Your task to perform on an android device: When is my next appointment? Image 0: 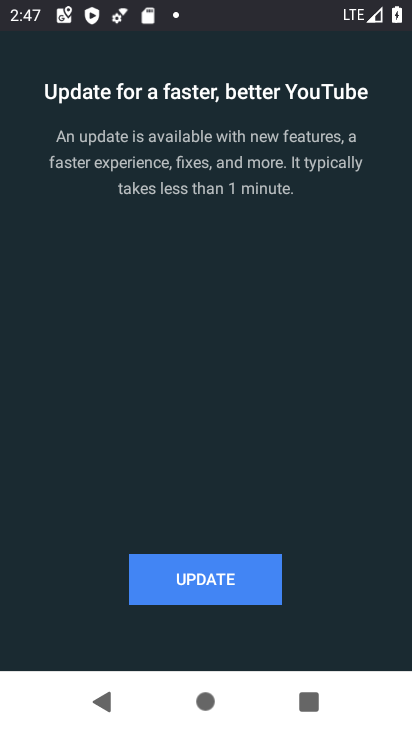
Step 0: press home button
Your task to perform on an android device: When is my next appointment? Image 1: 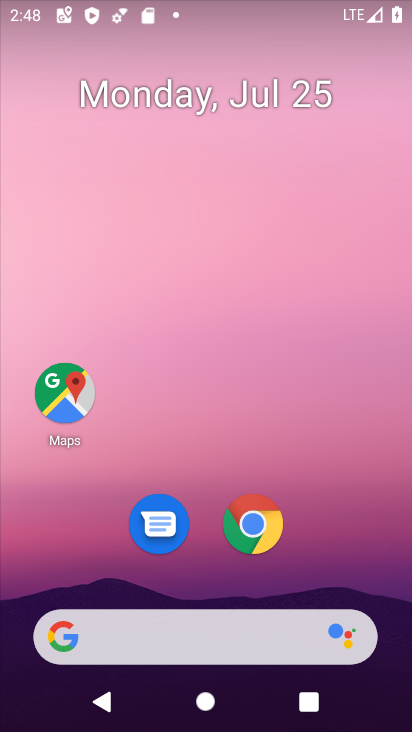
Step 1: drag from (324, 502) to (357, 94)
Your task to perform on an android device: When is my next appointment? Image 2: 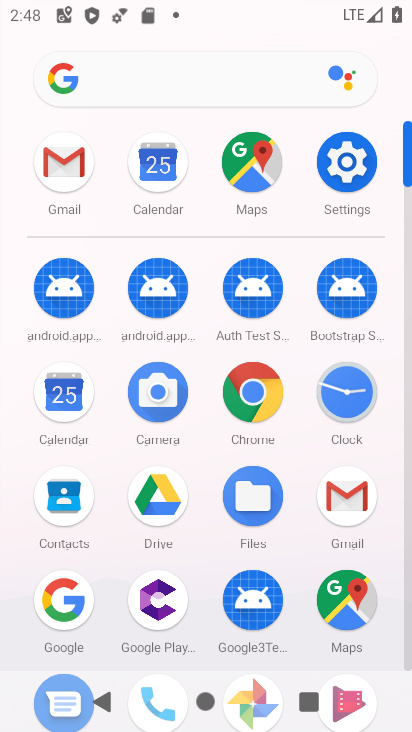
Step 2: click (162, 167)
Your task to perform on an android device: When is my next appointment? Image 3: 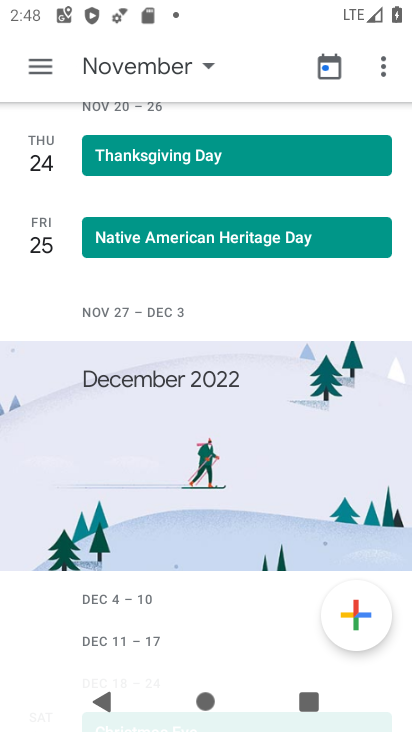
Step 3: drag from (297, 197) to (277, 557)
Your task to perform on an android device: When is my next appointment? Image 4: 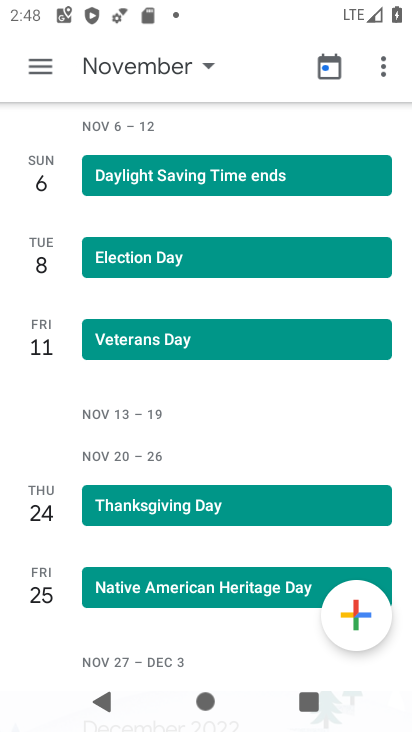
Step 4: drag from (314, 220) to (259, 656)
Your task to perform on an android device: When is my next appointment? Image 5: 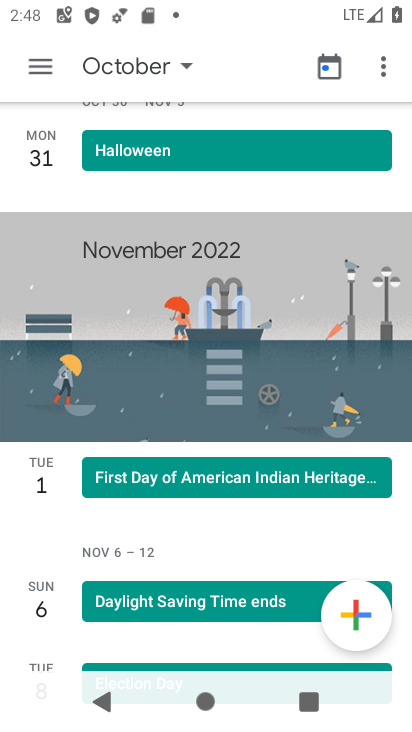
Step 5: drag from (298, 214) to (246, 563)
Your task to perform on an android device: When is my next appointment? Image 6: 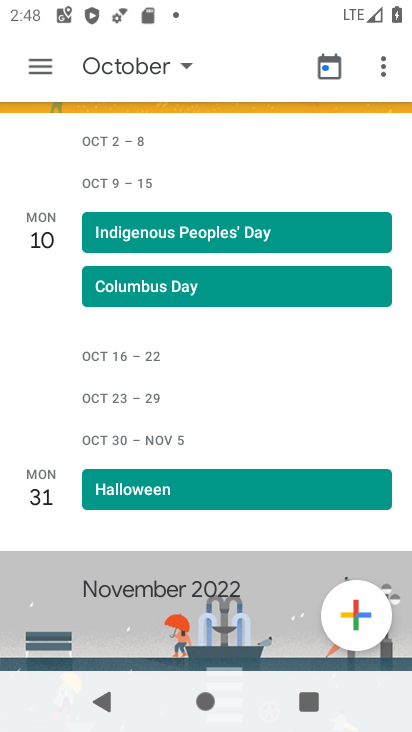
Step 6: drag from (313, 197) to (285, 595)
Your task to perform on an android device: When is my next appointment? Image 7: 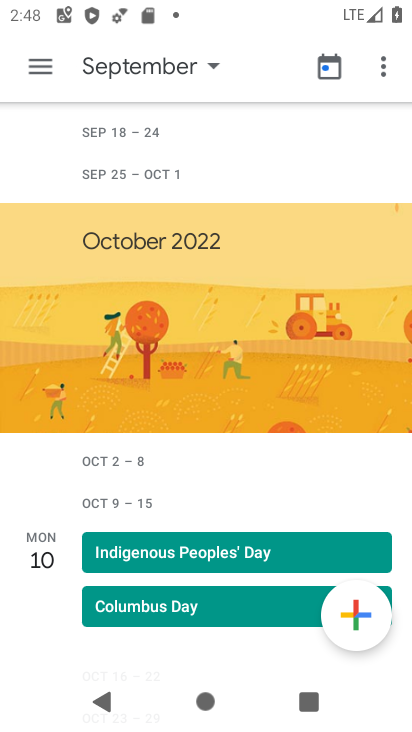
Step 7: drag from (280, 198) to (282, 616)
Your task to perform on an android device: When is my next appointment? Image 8: 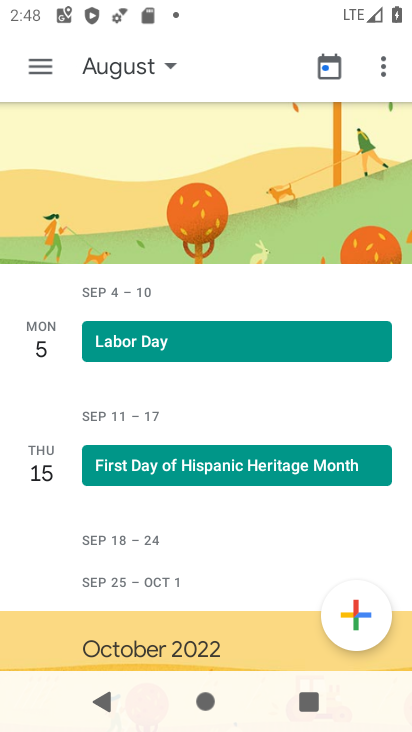
Step 8: drag from (295, 198) to (299, 645)
Your task to perform on an android device: When is my next appointment? Image 9: 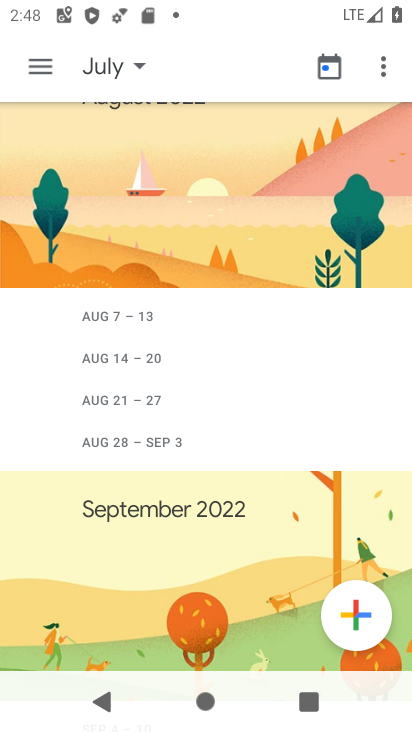
Step 9: drag from (275, 202) to (241, 651)
Your task to perform on an android device: When is my next appointment? Image 10: 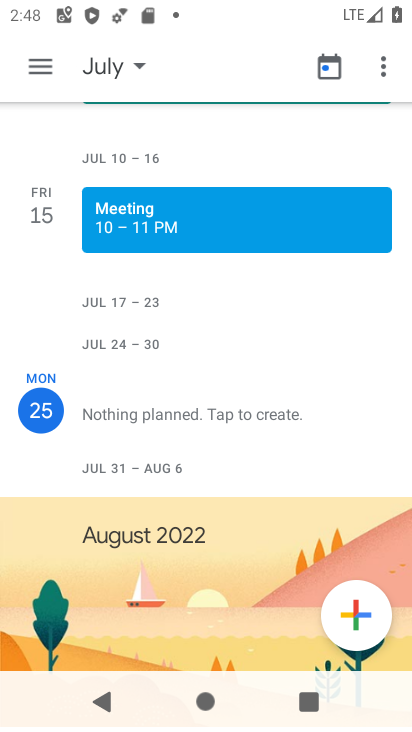
Step 10: drag from (266, 135) to (221, 599)
Your task to perform on an android device: When is my next appointment? Image 11: 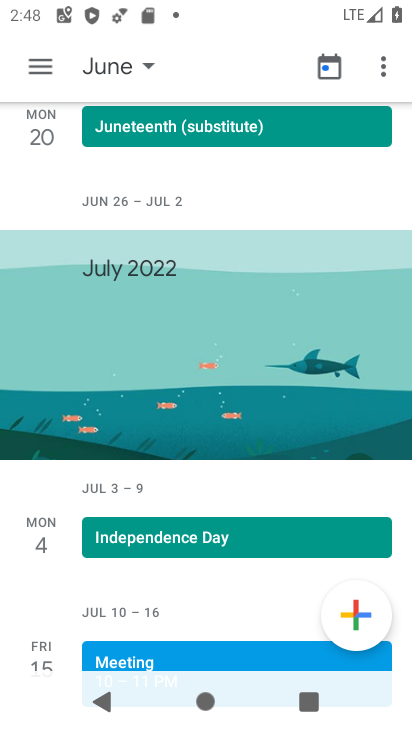
Step 11: drag from (247, 174) to (239, 729)
Your task to perform on an android device: When is my next appointment? Image 12: 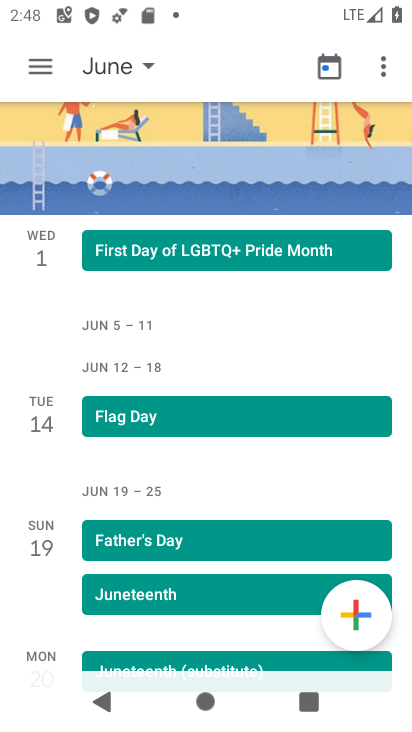
Step 12: drag from (238, 340) to (219, 622)
Your task to perform on an android device: When is my next appointment? Image 13: 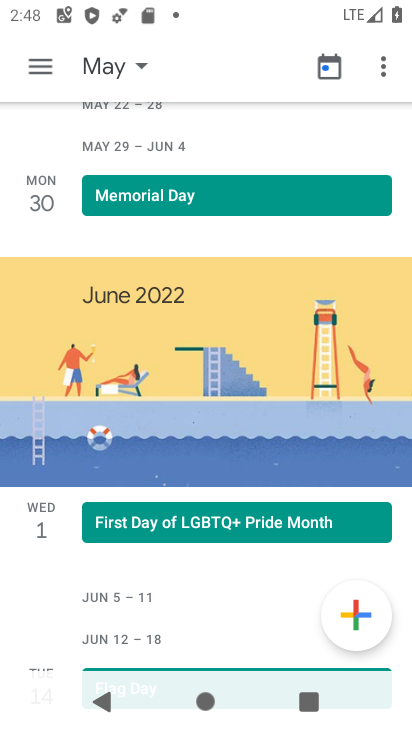
Step 13: drag from (269, 150) to (258, 638)
Your task to perform on an android device: When is my next appointment? Image 14: 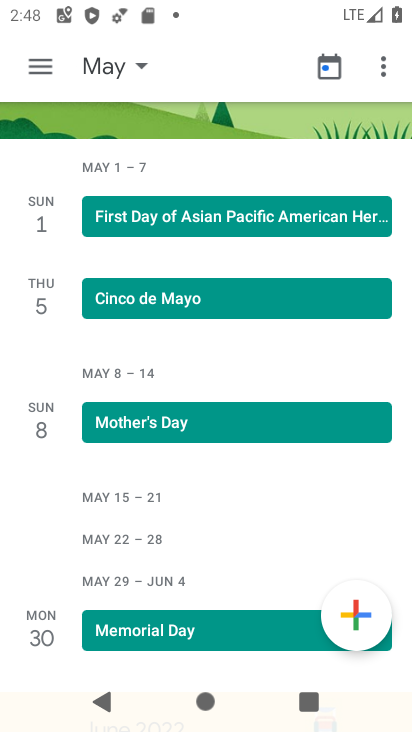
Step 14: drag from (254, 165) to (239, 388)
Your task to perform on an android device: When is my next appointment? Image 15: 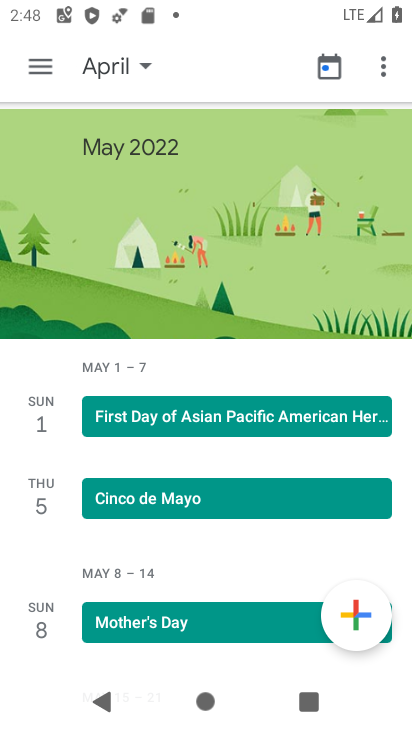
Step 15: drag from (205, 548) to (255, 113)
Your task to perform on an android device: When is my next appointment? Image 16: 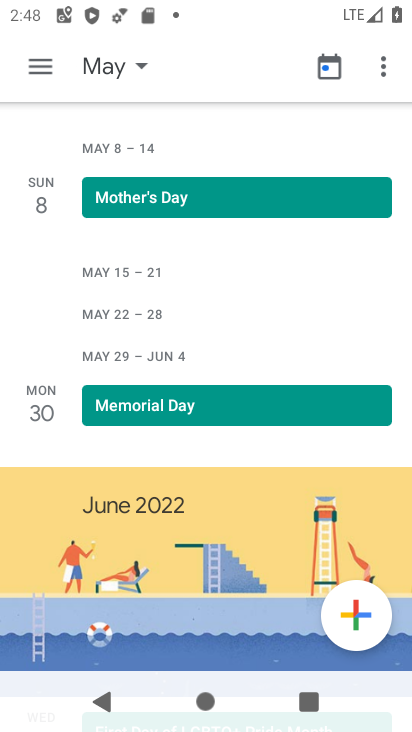
Step 16: drag from (206, 535) to (298, 158)
Your task to perform on an android device: When is my next appointment? Image 17: 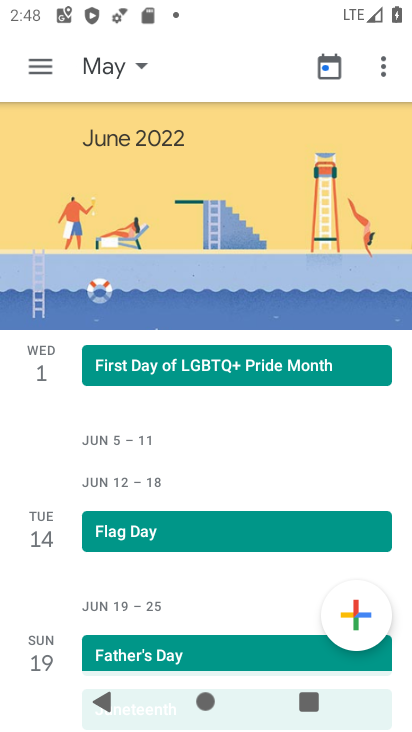
Step 17: drag from (235, 620) to (250, 149)
Your task to perform on an android device: When is my next appointment? Image 18: 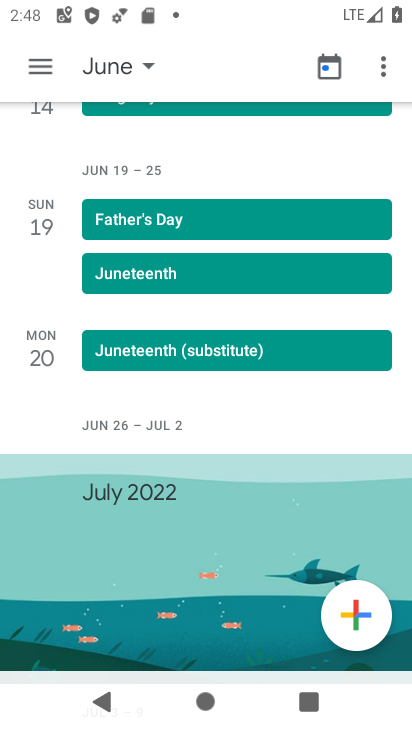
Step 18: drag from (157, 563) to (208, 45)
Your task to perform on an android device: When is my next appointment? Image 19: 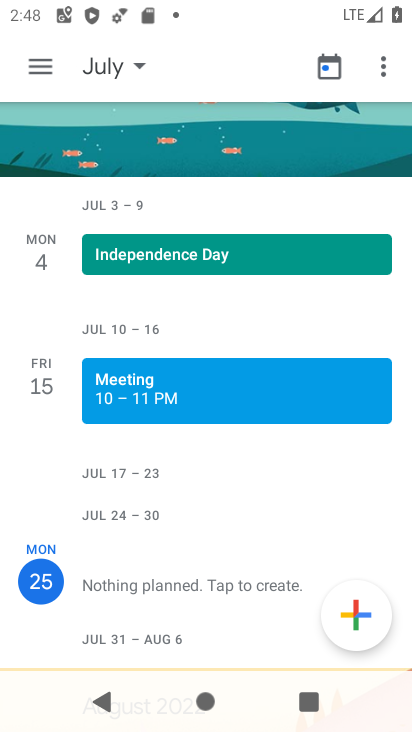
Step 19: drag from (158, 493) to (194, 209)
Your task to perform on an android device: When is my next appointment? Image 20: 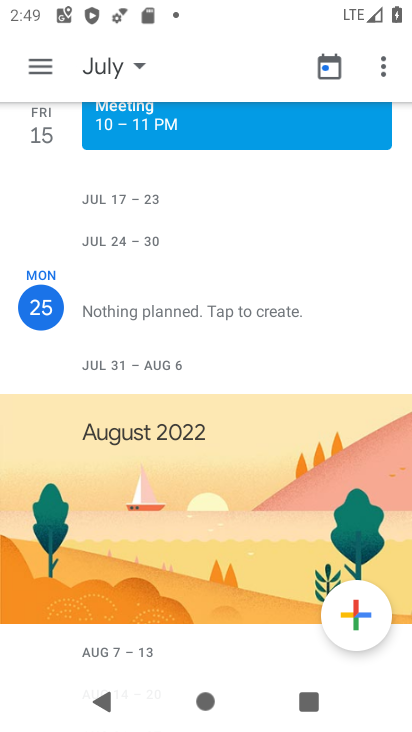
Step 20: click (46, 305)
Your task to perform on an android device: When is my next appointment? Image 21: 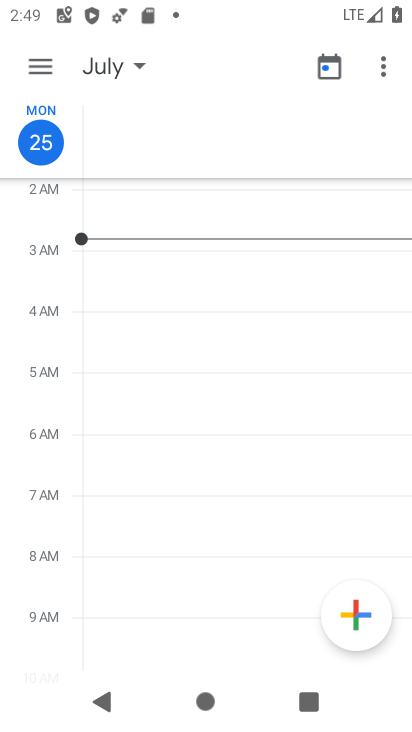
Step 21: click (40, 137)
Your task to perform on an android device: When is my next appointment? Image 22: 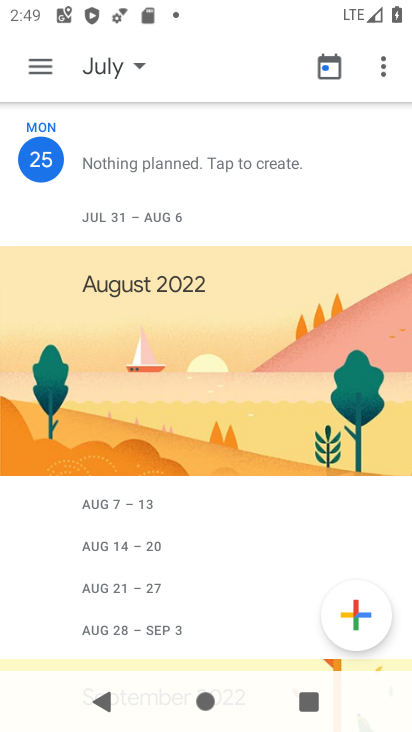
Step 22: task complete